Your task to perform on an android device: check google app version Image 0: 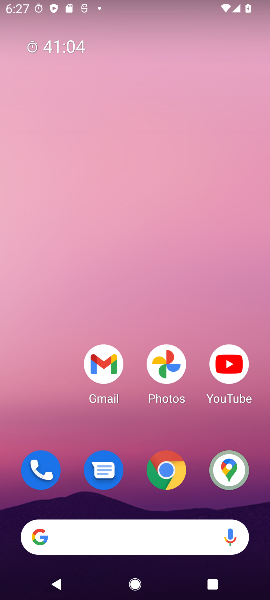
Step 0: press home button
Your task to perform on an android device: check google app version Image 1: 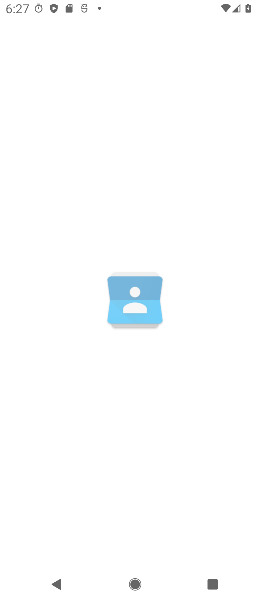
Step 1: drag from (91, 317) to (70, 168)
Your task to perform on an android device: check google app version Image 2: 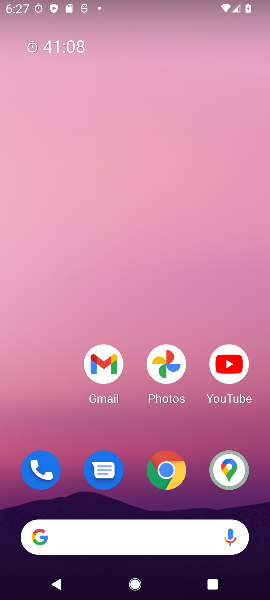
Step 2: drag from (152, 507) to (139, 21)
Your task to perform on an android device: check google app version Image 3: 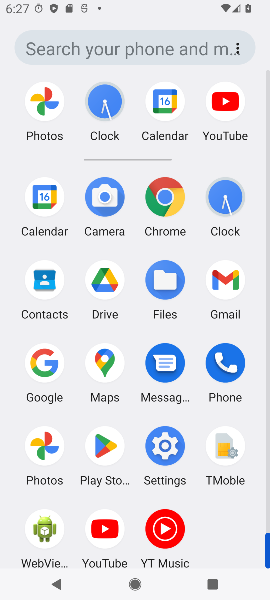
Step 3: click (163, 454)
Your task to perform on an android device: check google app version Image 4: 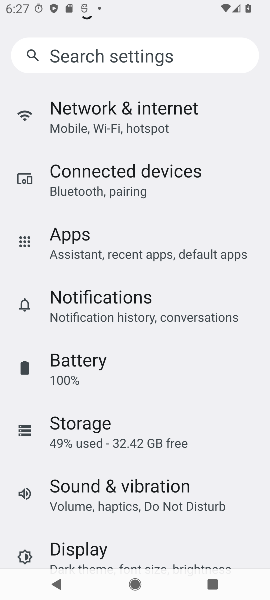
Step 4: press back button
Your task to perform on an android device: check google app version Image 5: 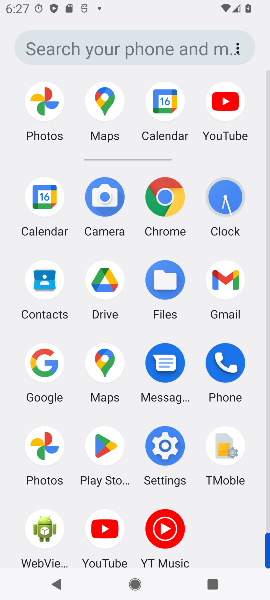
Step 5: click (14, 373)
Your task to perform on an android device: check google app version Image 6: 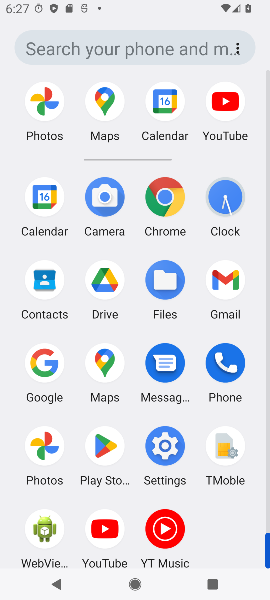
Step 6: click (28, 370)
Your task to perform on an android device: check google app version Image 7: 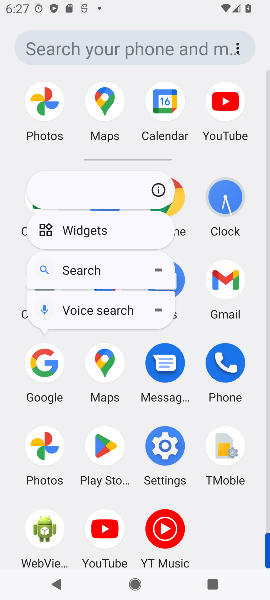
Step 7: click (161, 196)
Your task to perform on an android device: check google app version Image 8: 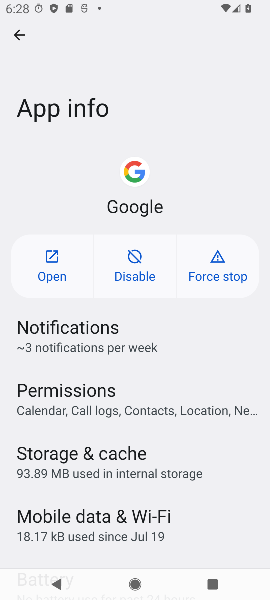
Step 8: task complete